Your task to perform on an android device: Open Google Image 0: 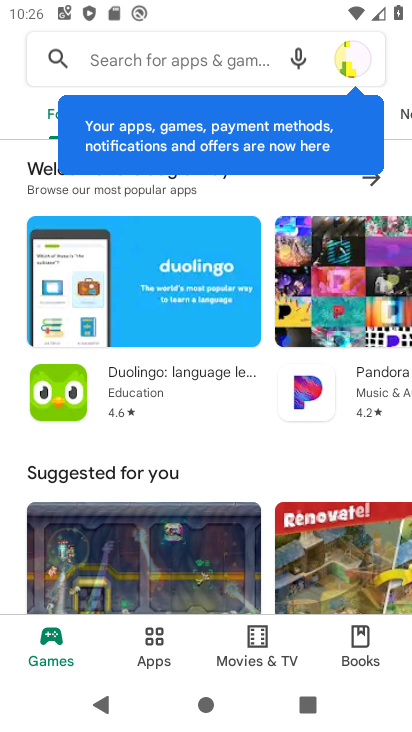
Step 0: press home button
Your task to perform on an android device: Open Google Image 1: 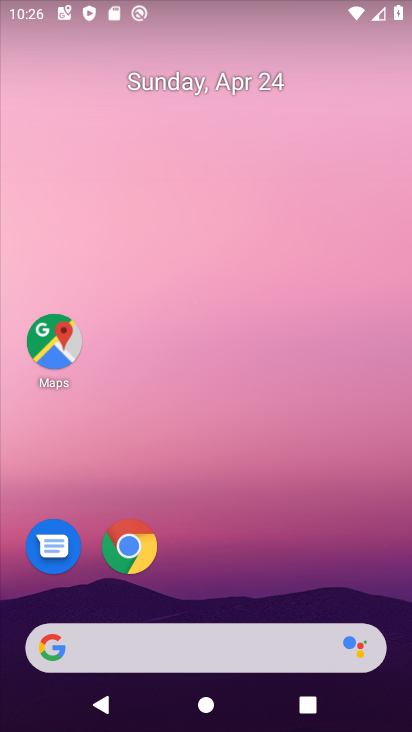
Step 1: drag from (356, 560) to (167, 13)
Your task to perform on an android device: Open Google Image 2: 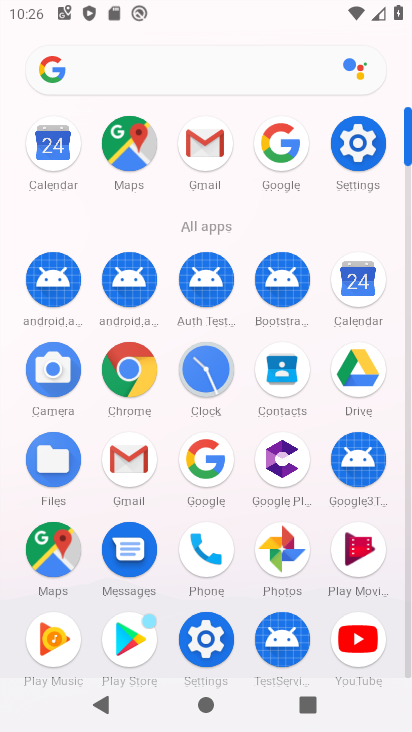
Step 2: click (282, 143)
Your task to perform on an android device: Open Google Image 3: 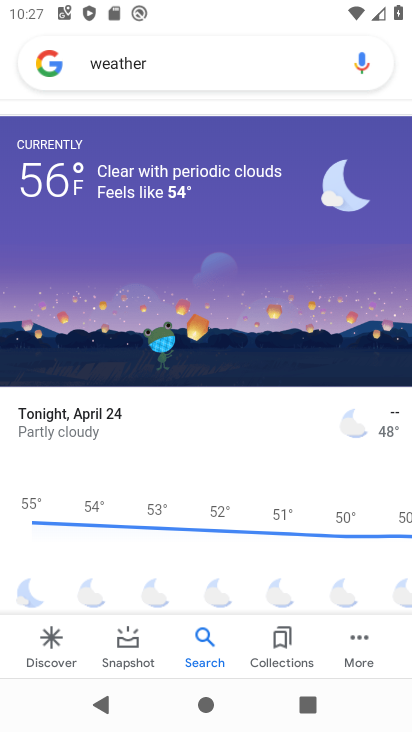
Step 3: task complete